Your task to perform on an android device: Go to privacy settings Image 0: 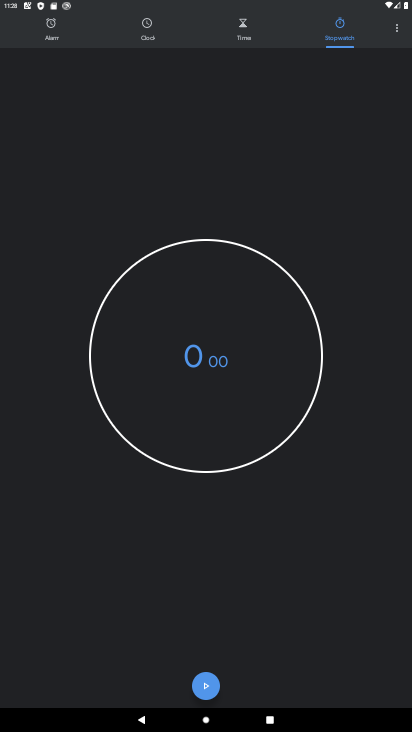
Step 0: task complete